Your task to perform on an android device: Open Youtube and go to the subscriptions tab Image 0: 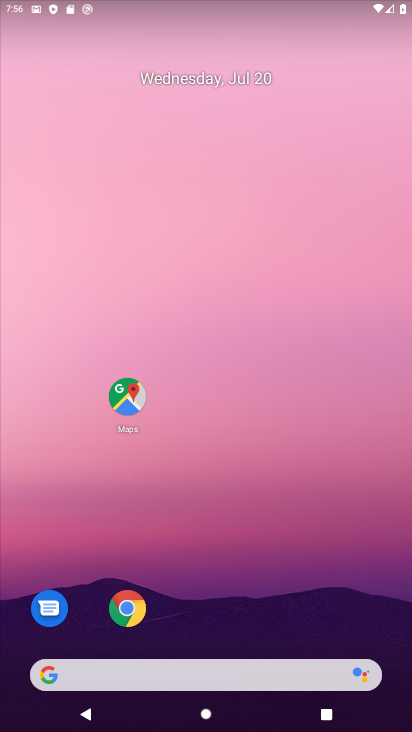
Step 0: drag from (8, 719) to (325, 0)
Your task to perform on an android device: Open Youtube and go to the subscriptions tab Image 1: 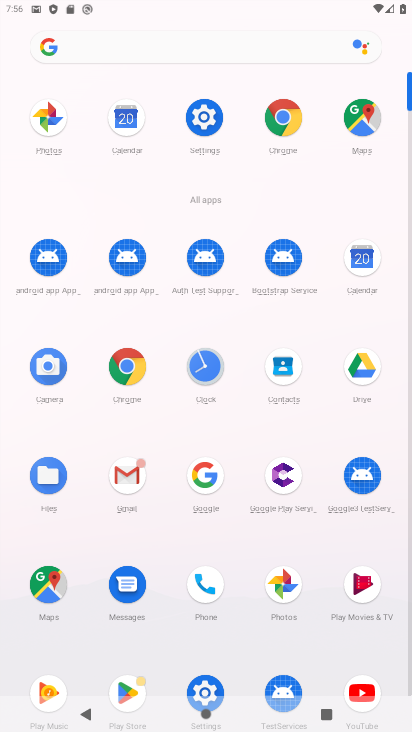
Step 1: click (362, 682)
Your task to perform on an android device: Open Youtube and go to the subscriptions tab Image 2: 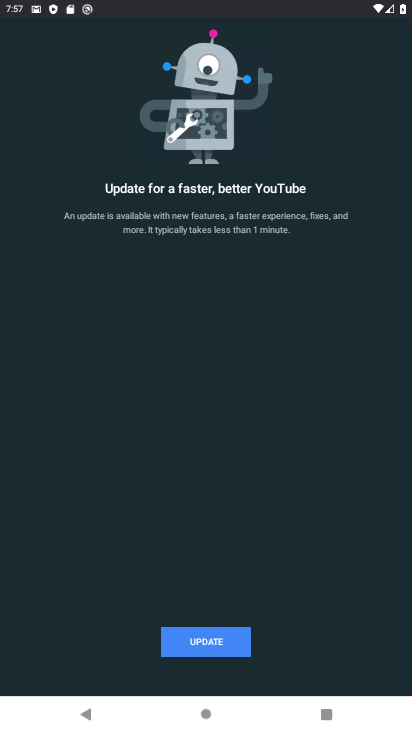
Step 2: click (281, 687)
Your task to perform on an android device: Open Youtube and go to the subscriptions tab Image 3: 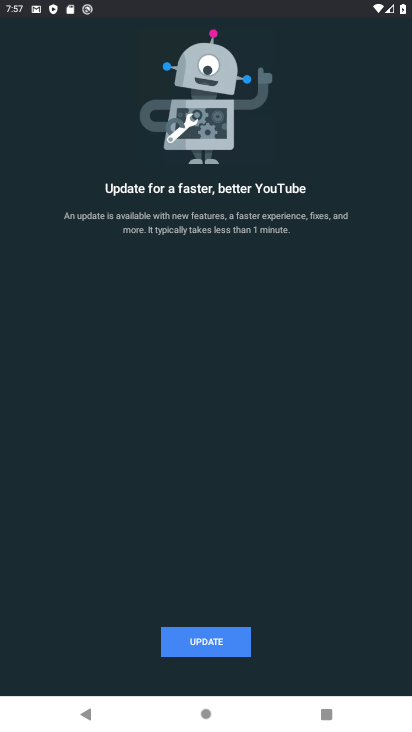
Step 3: task complete